Your task to perform on an android device: change the clock display to analog Image 0: 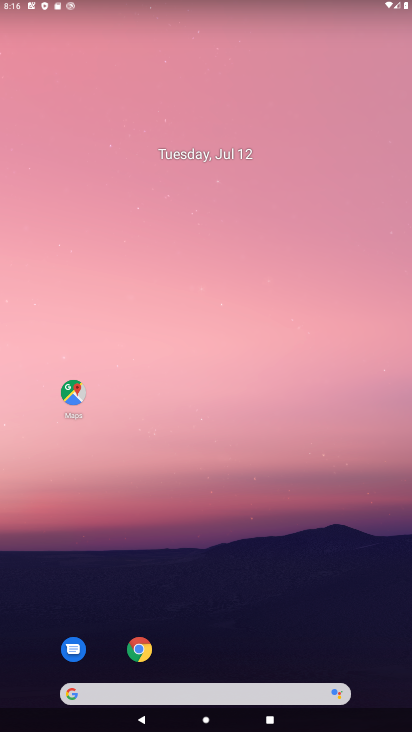
Step 0: drag from (213, 650) to (216, 120)
Your task to perform on an android device: change the clock display to analog Image 1: 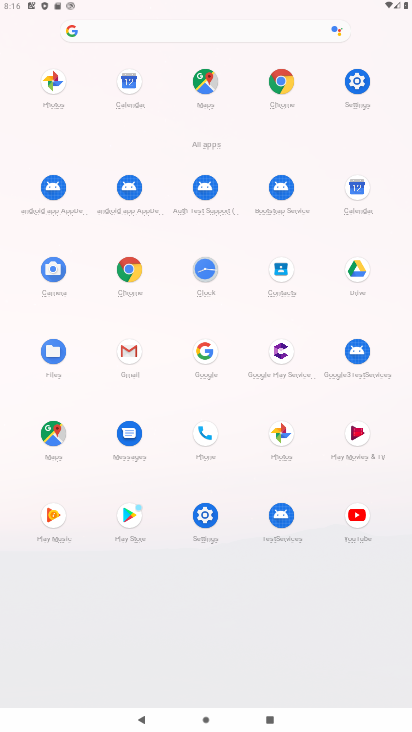
Step 1: click (203, 272)
Your task to perform on an android device: change the clock display to analog Image 2: 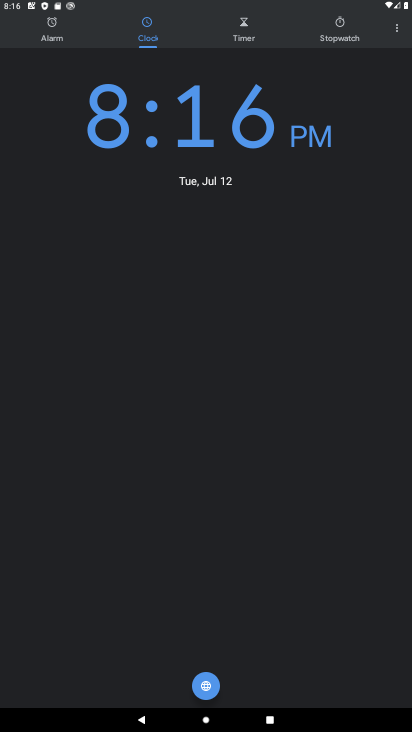
Step 2: click (394, 28)
Your task to perform on an android device: change the clock display to analog Image 3: 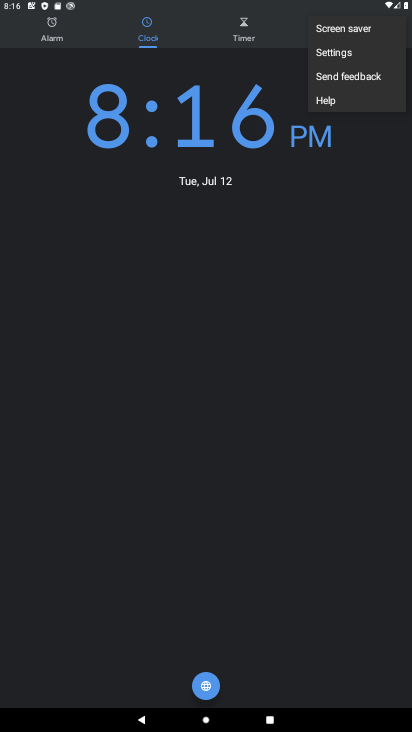
Step 3: click (358, 56)
Your task to perform on an android device: change the clock display to analog Image 4: 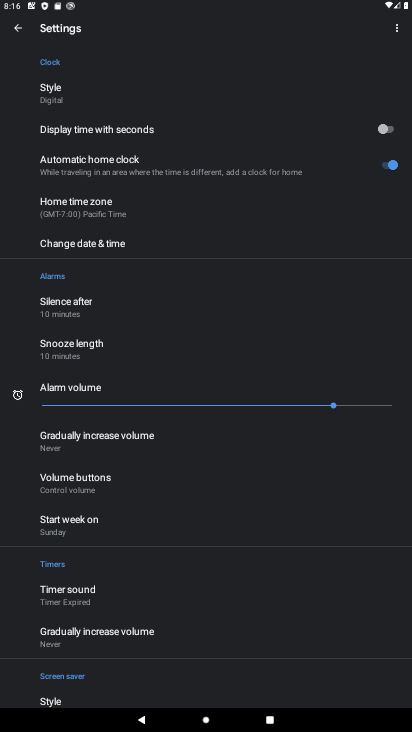
Step 4: click (93, 86)
Your task to perform on an android device: change the clock display to analog Image 5: 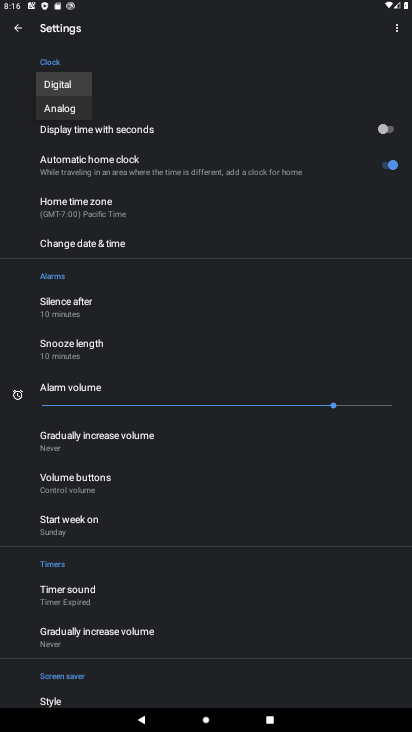
Step 5: click (74, 106)
Your task to perform on an android device: change the clock display to analog Image 6: 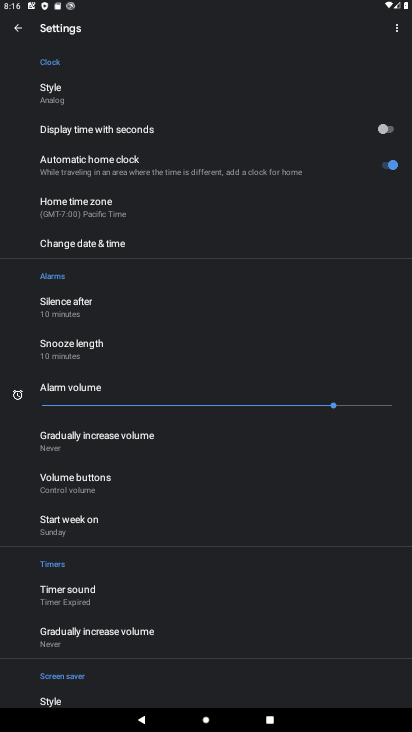
Step 6: task complete